Your task to perform on an android device: turn off javascript in the chrome app Image 0: 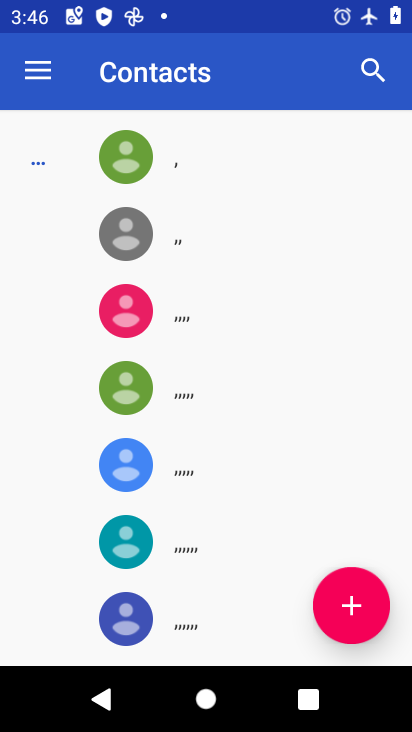
Step 0: press home button
Your task to perform on an android device: turn off javascript in the chrome app Image 1: 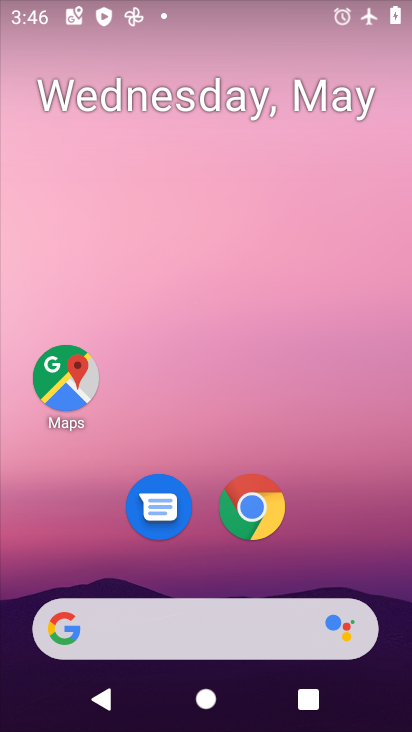
Step 1: click (260, 523)
Your task to perform on an android device: turn off javascript in the chrome app Image 2: 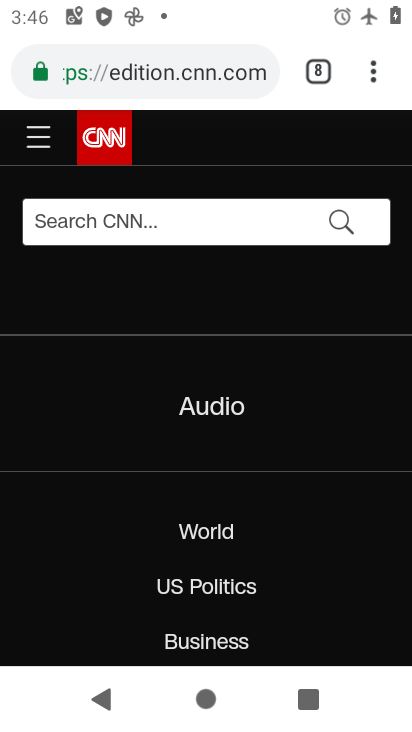
Step 2: click (359, 81)
Your task to perform on an android device: turn off javascript in the chrome app Image 3: 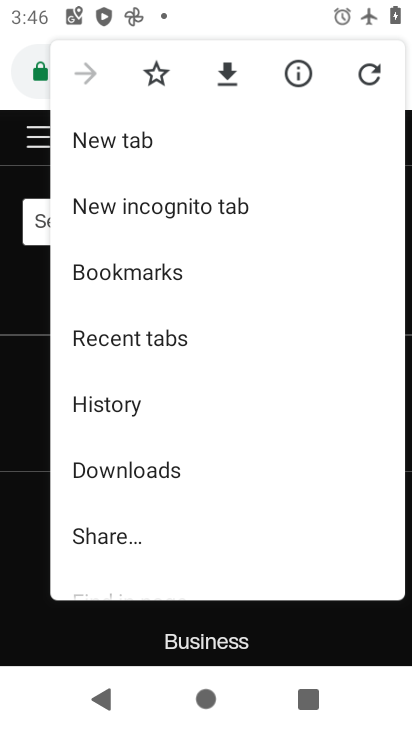
Step 3: drag from (255, 495) to (255, 329)
Your task to perform on an android device: turn off javascript in the chrome app Image 4: 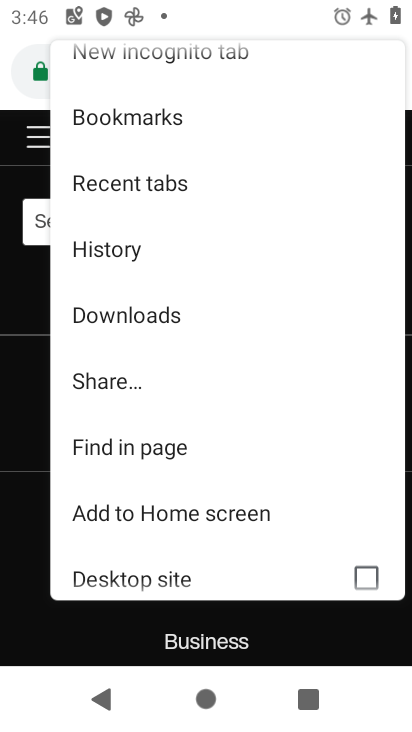
Step 4: drag from (272, 407) to (261, 178)
Your task to perform on an android device: turn off javascript in the chrome app Image 5: 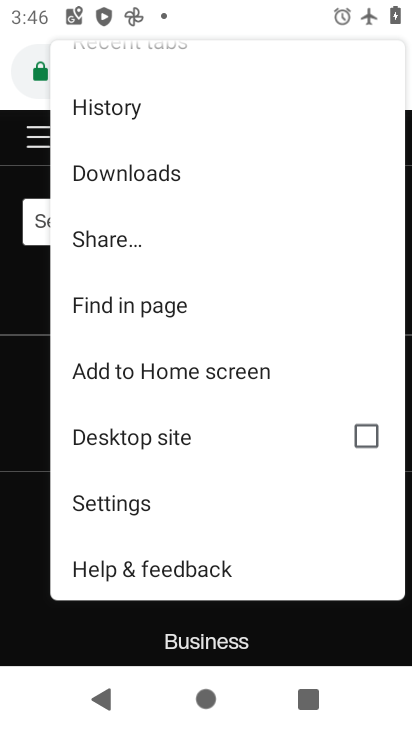
Step 5: click (161, 506)
Your task to perform on an android device: turn off javascript in the chrome app Image 6: 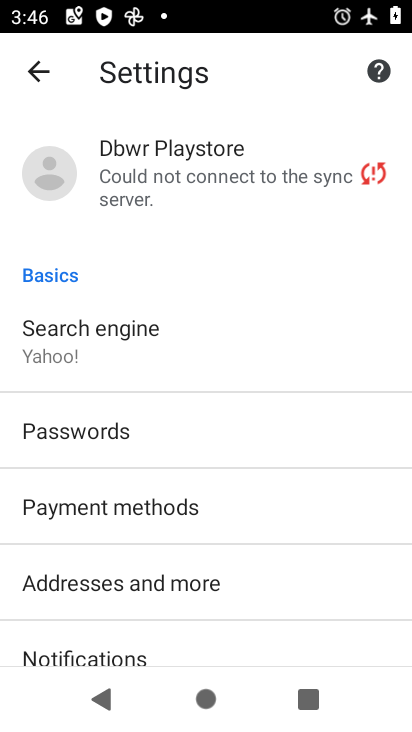
Step 6: drag from (164, 542) to (183, 305)
Your task to perform on an android device: turn off javascript in the chrome app Image 7: 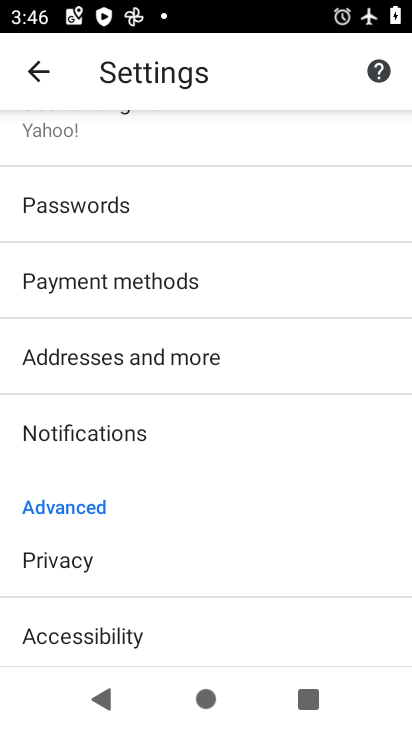
Step 7: drag from (200, 571) to (242, 256)
Your task to perform on an android device: turn off javascript in the chrome app Image 8: 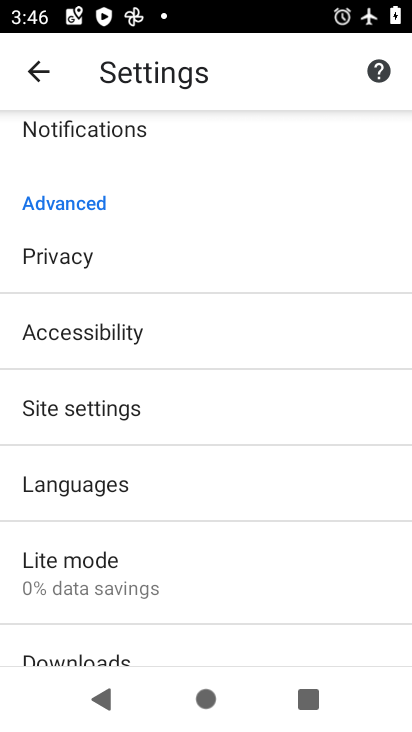
Step 8: click (137, 392)
Your task to perform on an android device: turn off javascript in the chrome app Image 9: 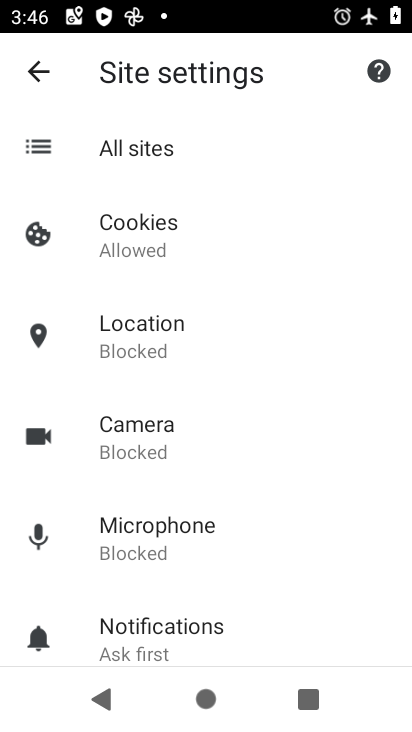
Step 9: drag from (213, 565) to (213, 257)
Your task to perform on an android device: turn off javascript in the chrome app Image 10: 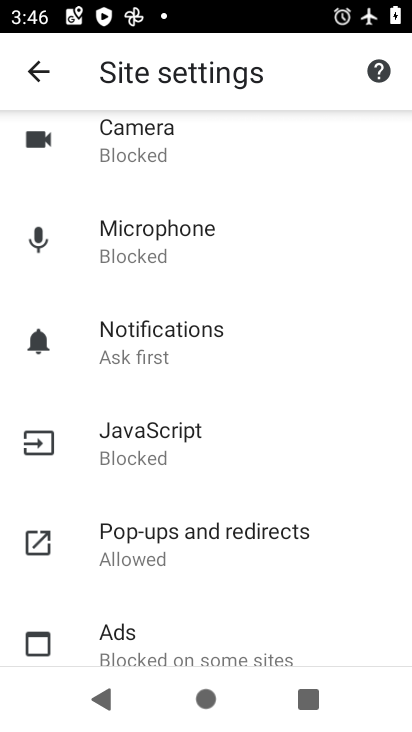
Step 10: click (142, 457)
Your task to perform on an android device: turn off javascript in the chrome app Image 11: 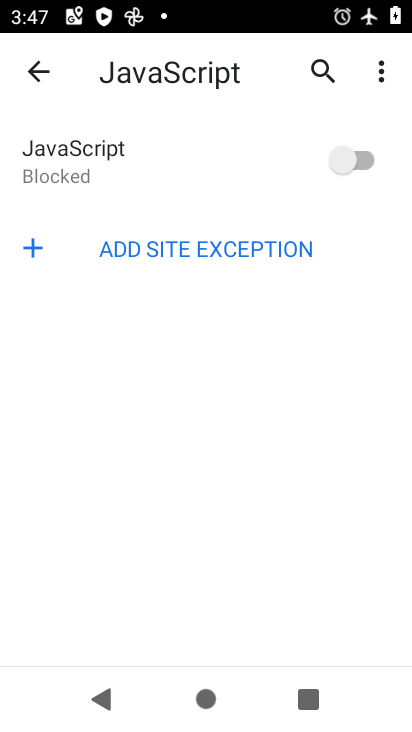
Step 11: task complete